Your task to perform on an android device: turn pop-ups off in chrome Image 0: 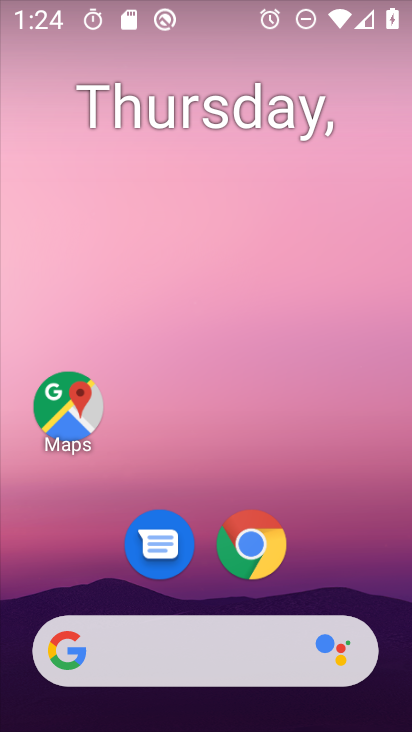
Step 0: press back button
Your task to perform on an android device: turn pop-ups off in chrome Image 1: 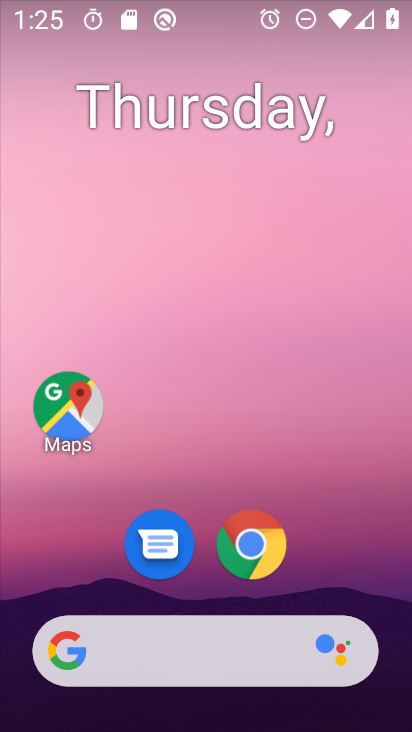
Step 1: click (241, 548)
Your task to perform on an android device: turn pop-ups off in chrome Image 2: 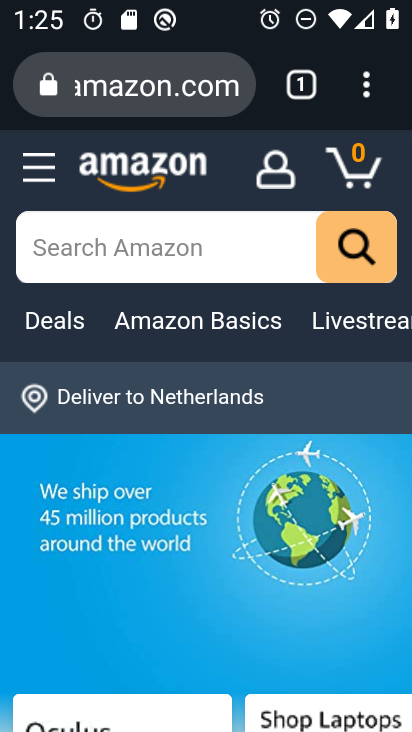
Step 2: click (354, 83)
Your task to perform on an android device: turn pop-ups off in chrome Image 3: 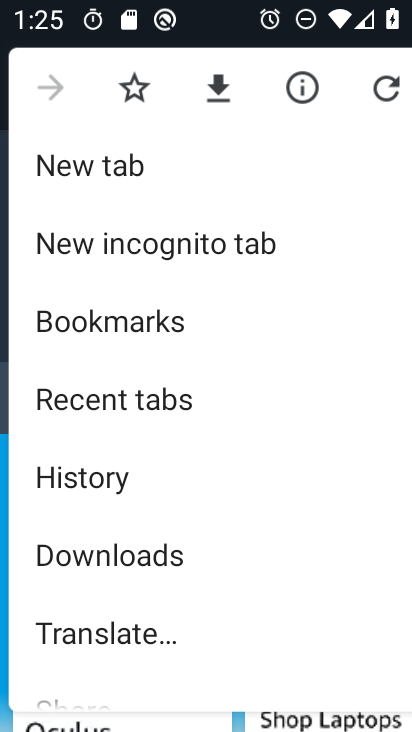
Step 3: drag from (158, 677) to (311, 134)
Your task to perform on an android device: turn pop-ups off in chrome Image 4: 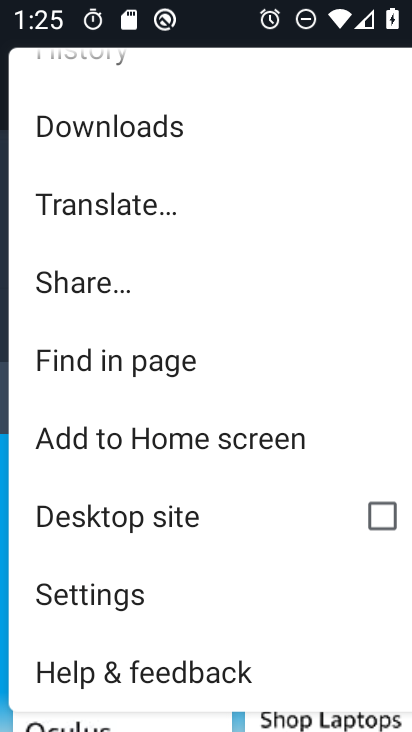
Step 4: click (85, 602)
Your task to perform on an android device: turn pop-ups off in chrome Image 5: 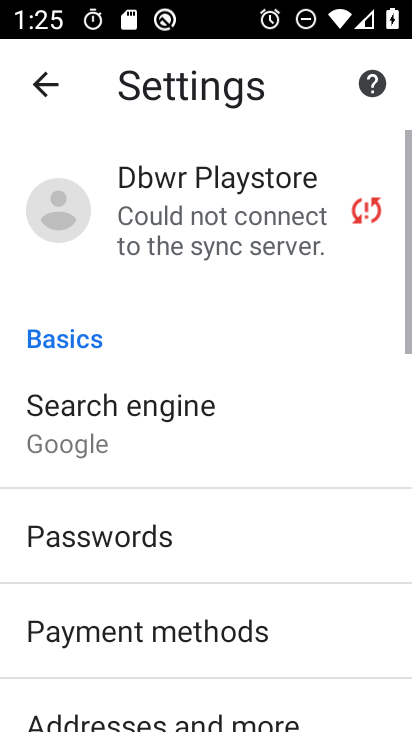
Step 5: drag from (88, 658) to (255, 92)
Your task to perform on an android device: turn pop-ups off in chrome Image 6: 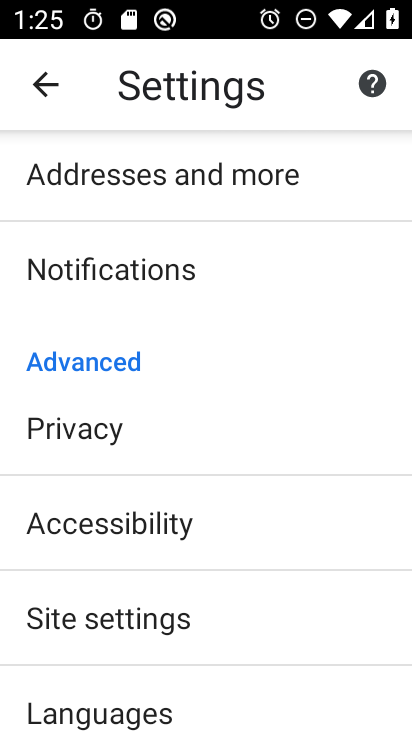
Step 6: drag from (113, 669) to (271, 136)
Your task to perform on an android device: turn pop-ups off in chrome Image 7: 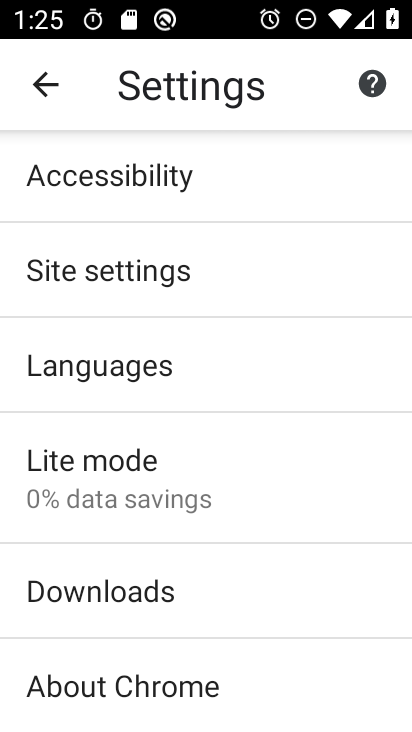
Step 7: click (144, 256)
Your task to perform on an android device: turn pop-ups off in chrome Image 8: 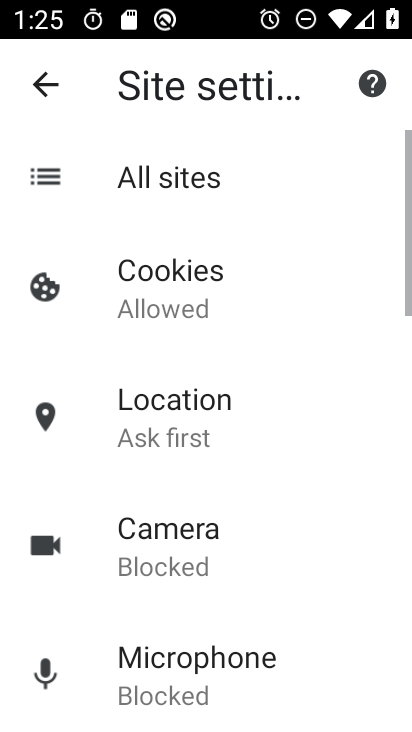
Step 8: drag from (60, 731) to (292, 101)
Your task to perform on an android device: turn pop-ups off in chrome Image 9: 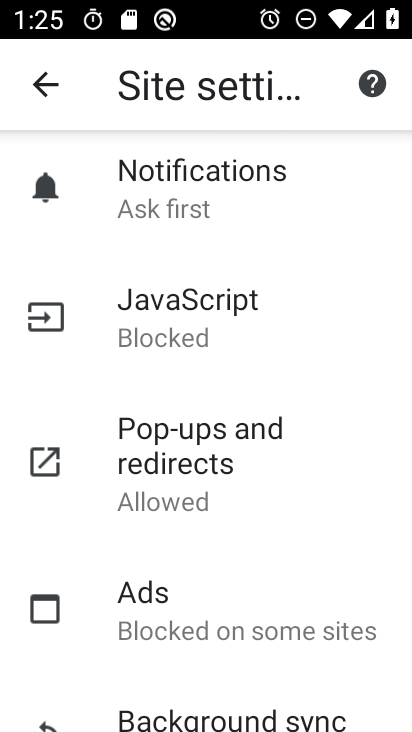
Step 9: click (135, 499)
Your task to perform on an android device: turn pop-ups off in chrome Image 10: 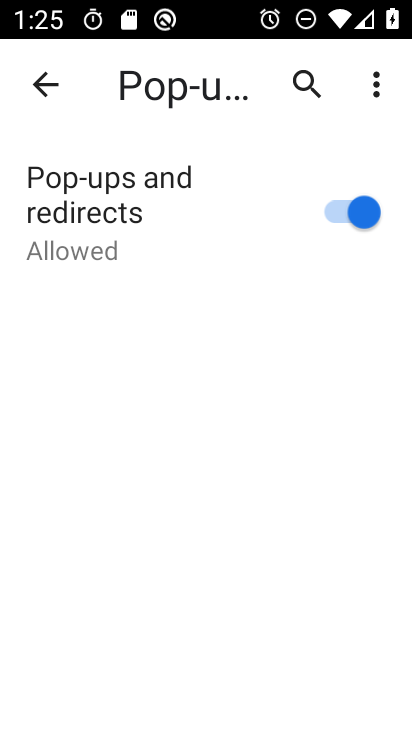
Step 10: click (365, 213)
Your task to perform on an android device: turn pop-ups off in chrome Image 11: 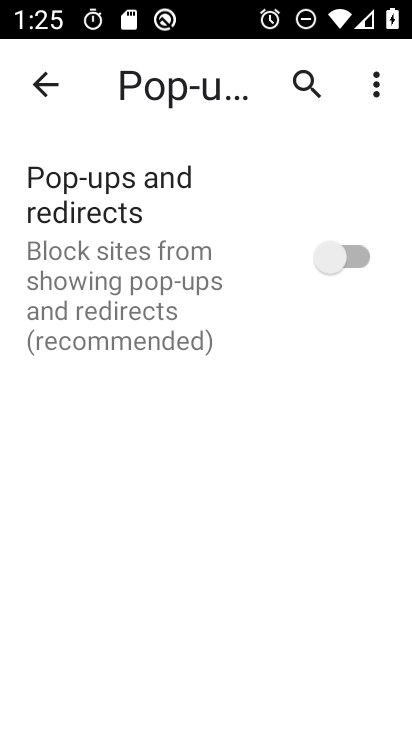
Step 11: task complete